Your task to perform on an android device: find photos in the google photos app Image 0: 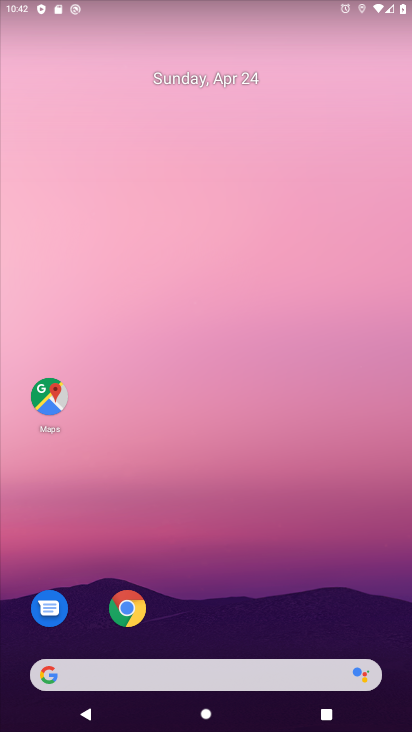
Step 0: drag from (377, 625) to (285, 12)
Your task to perform on an android device: find photos in the google photos app Image 1: 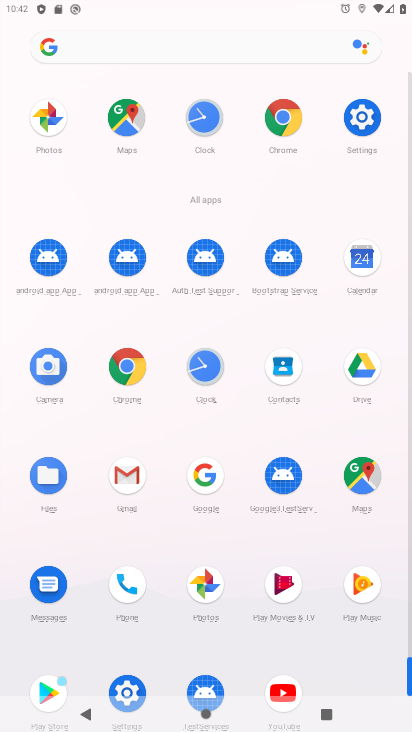
Step 1: click (201, 579)
Your task to perform on an android device: find photos in the google photos app Image 2: 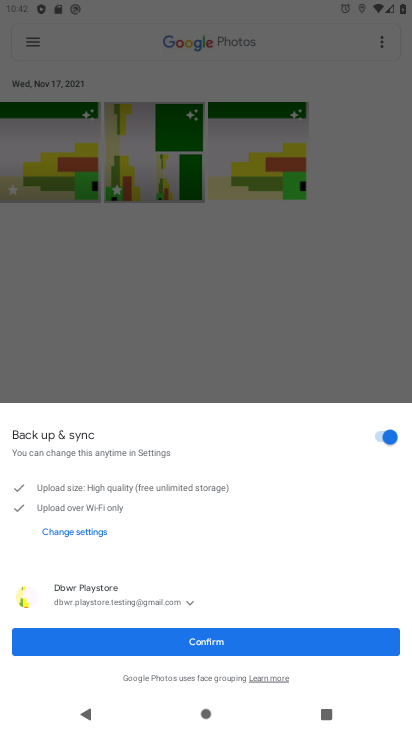
Step 2: click (195, 644)
Your task to perform on an android device: find photos in the google photos app Image 3: 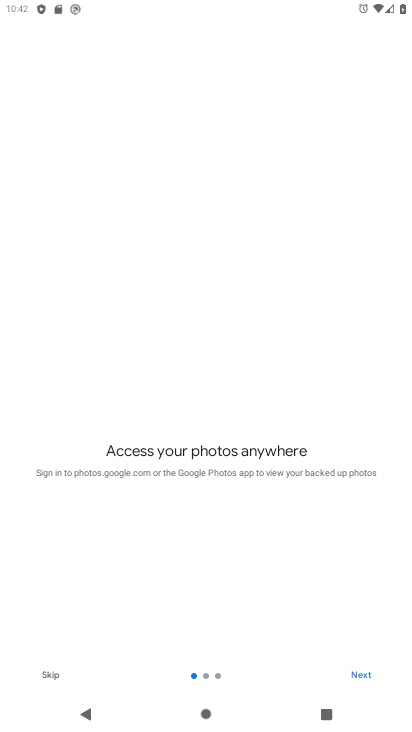
Step 3: click (358, 670)
Your task to perform on an android device: find photos in the google photos app Image 4: 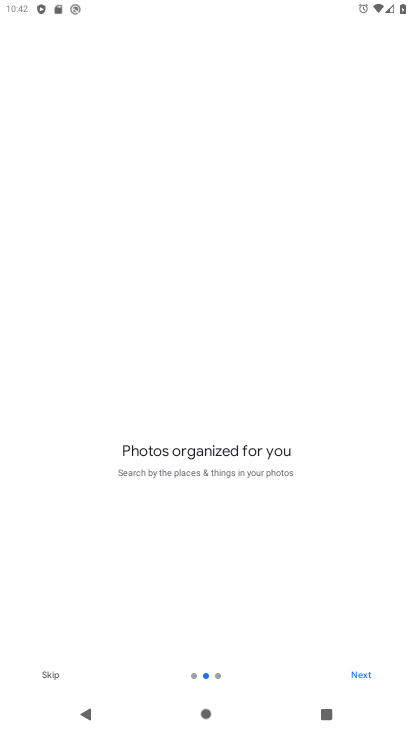
Step 4: click (358, 670)
Your task to perform on an android device: find photos in the google photos app Image 5: 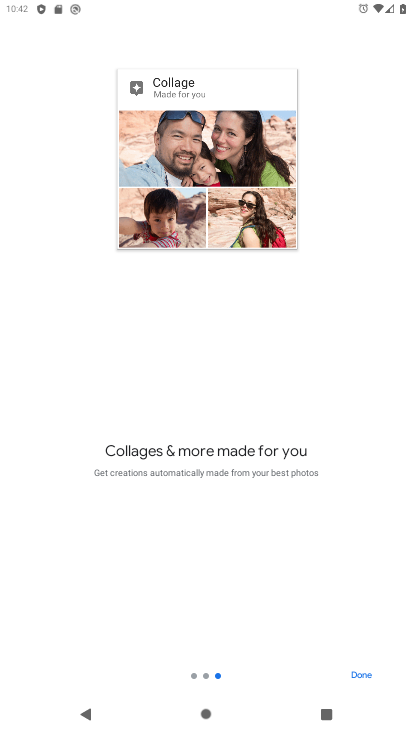
Step 5: click (358, 670)
Your task to perform on an android device: find photos in the google photos app Image 6: 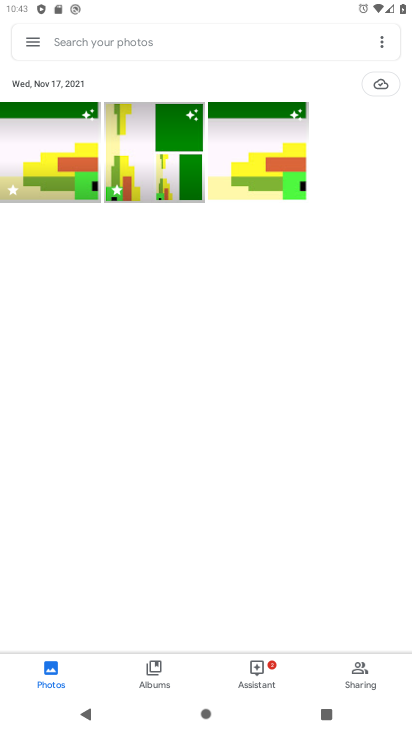
Step 6: task complete